Your task to perform on an android device: What's the news in Malaysia? Image 0: 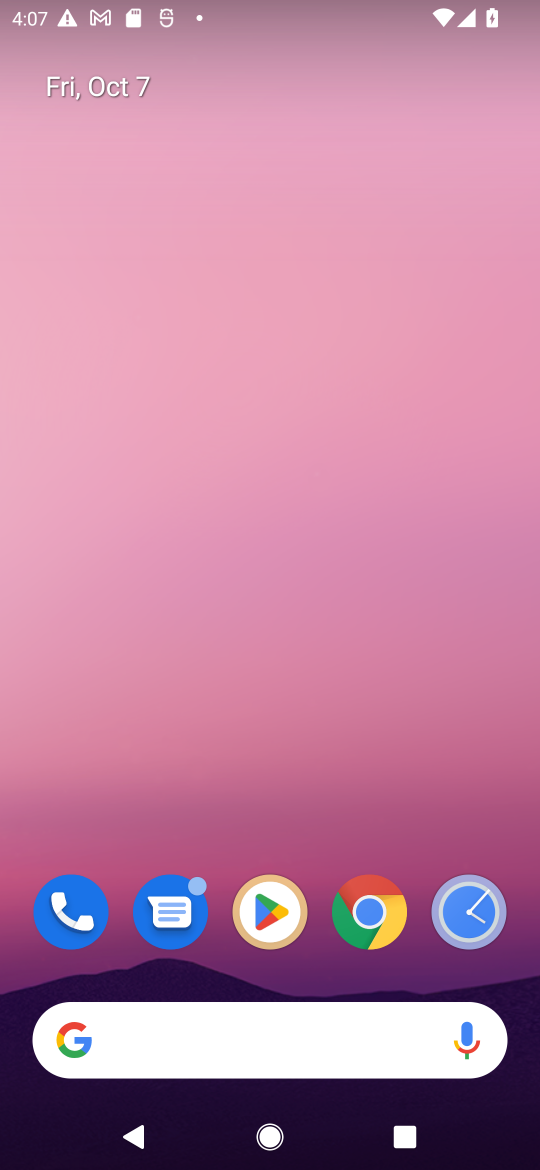
Step 0: drag from (291, 1008) to (324, 379)
Your task to perform on an android device: What's the news in Malaysia? Image 1: 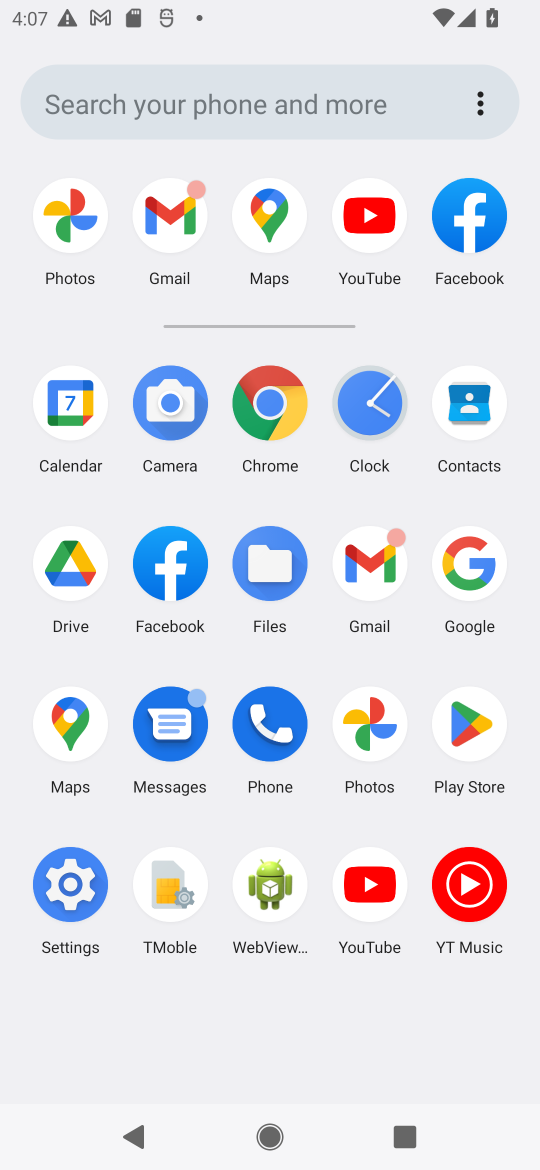
Step 1: click (455, 566)
Your task to perform on an android device: What's the news in Malaysia? Image 2: 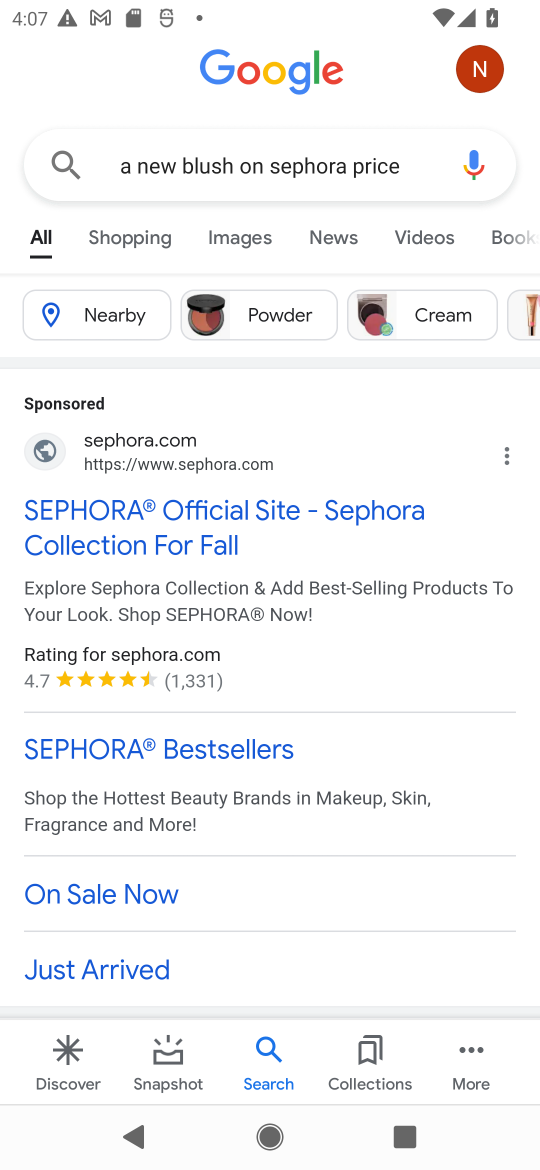
Step 2: click (405, 160)
Your task to perform on an android device: What's the news in Malaysia? Image 3: 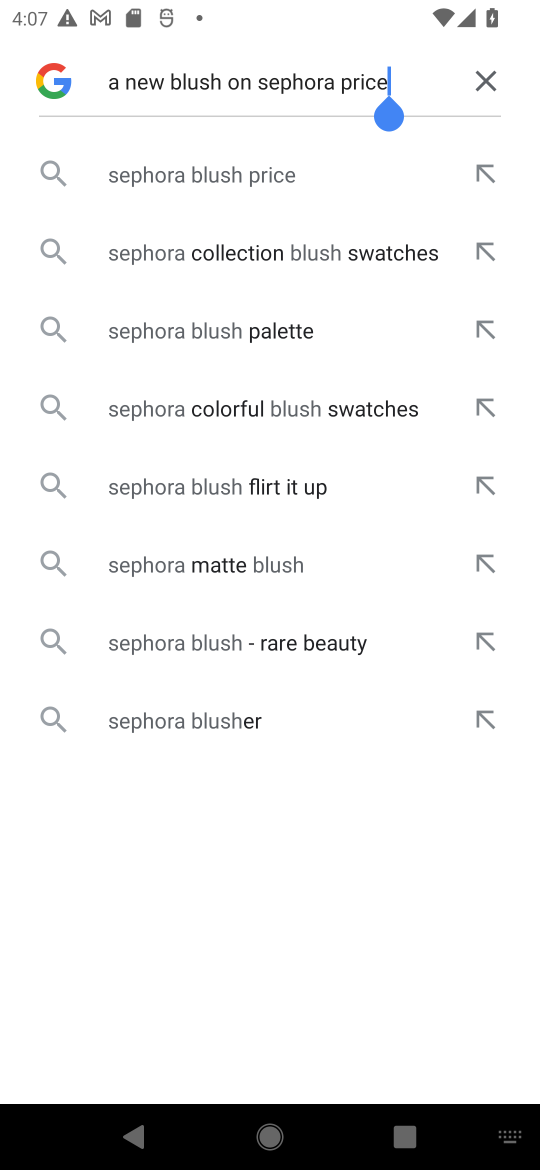
Step 3: click (474, 89)
Your task to perform on an android device: What's the news in Malaysia? Image 4: 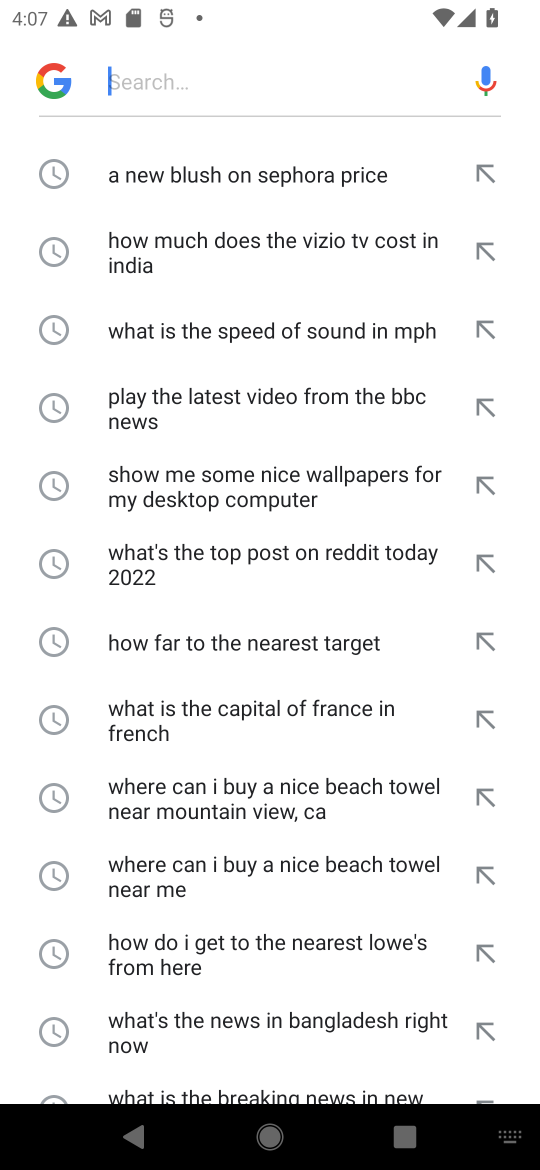
Step 4: click (221, 66)
Your task to perform on an android device: What's the news in Malaysia? Image 5: 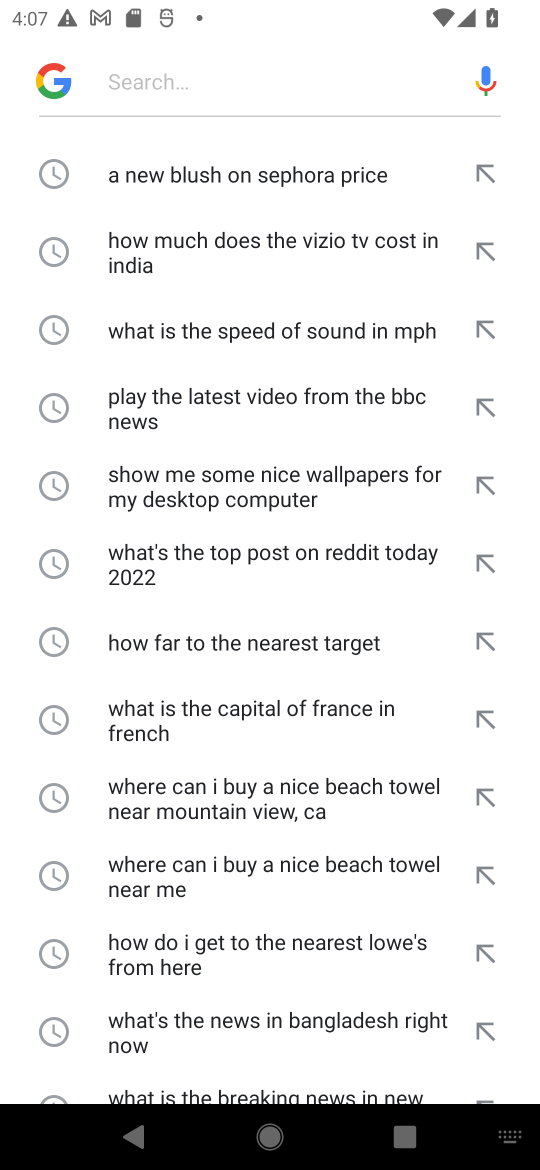
Step 5: type "What's the news in Malaysia? "
Your task to perform on an android device: What's the news in Malaysia? Image 6: 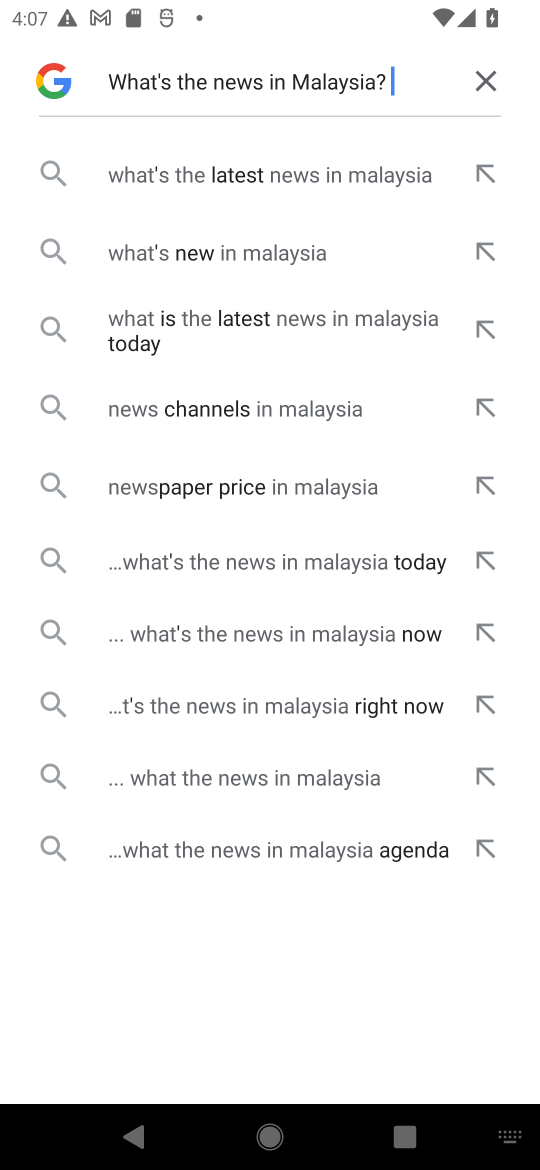
Step 6: click (143, 182)
Your task to perform on an android device: What's the news in Malaysia? Image 7: 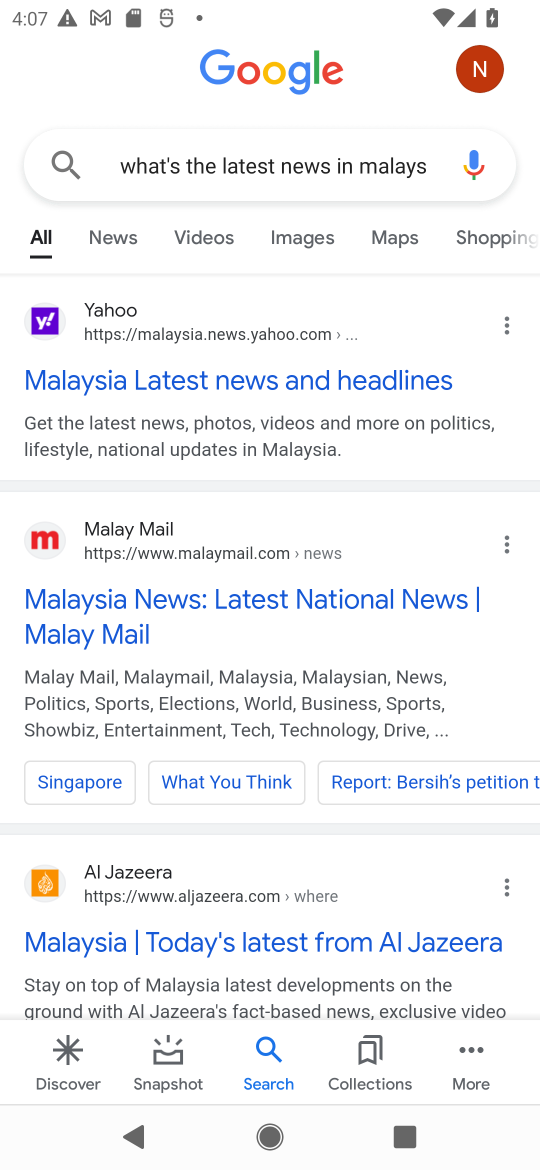
Step 7: click (380, 378)
Your task to perform on an android device: What's the news in Malaysia? Image 8: 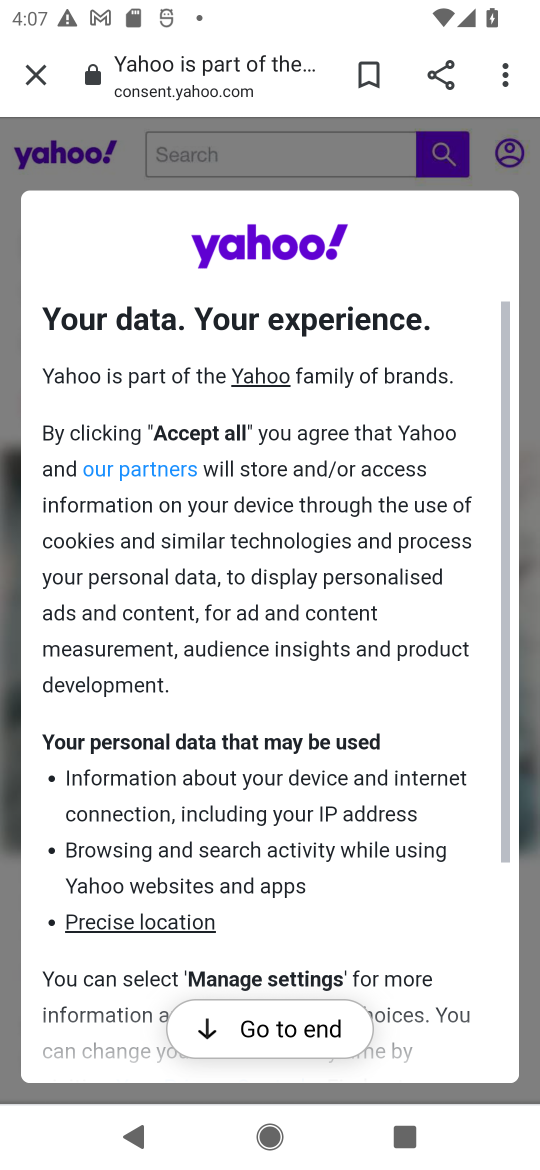
Step 8: click (307, 1035)
Your task to perform on an android device: What's the news in Malaysia? Image 9: 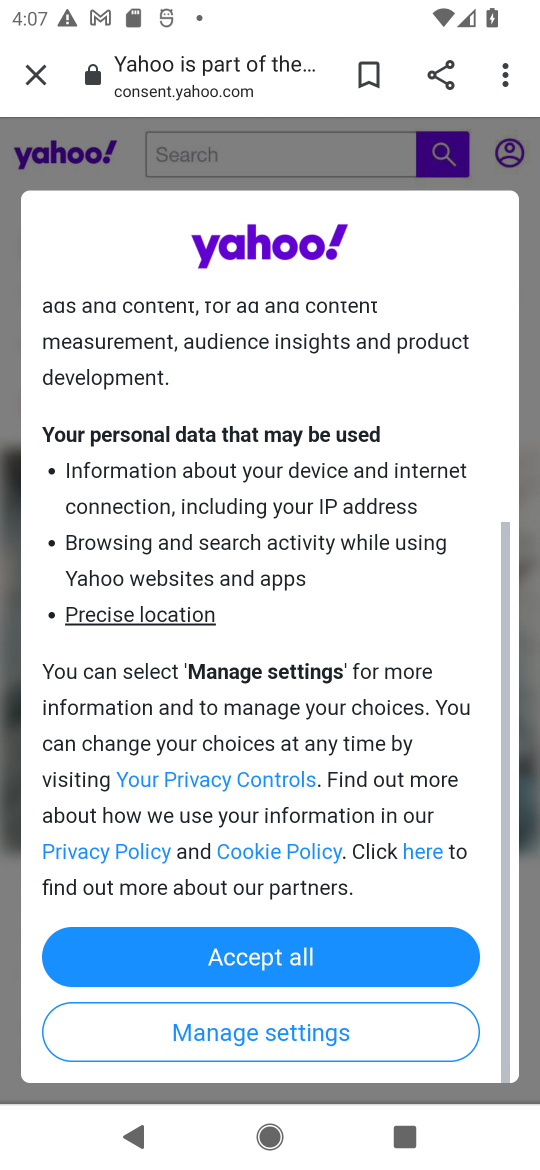
Step 9: click (312, 938)
Your task to perform on an android device: What's the news in Malaysia? Image 10: 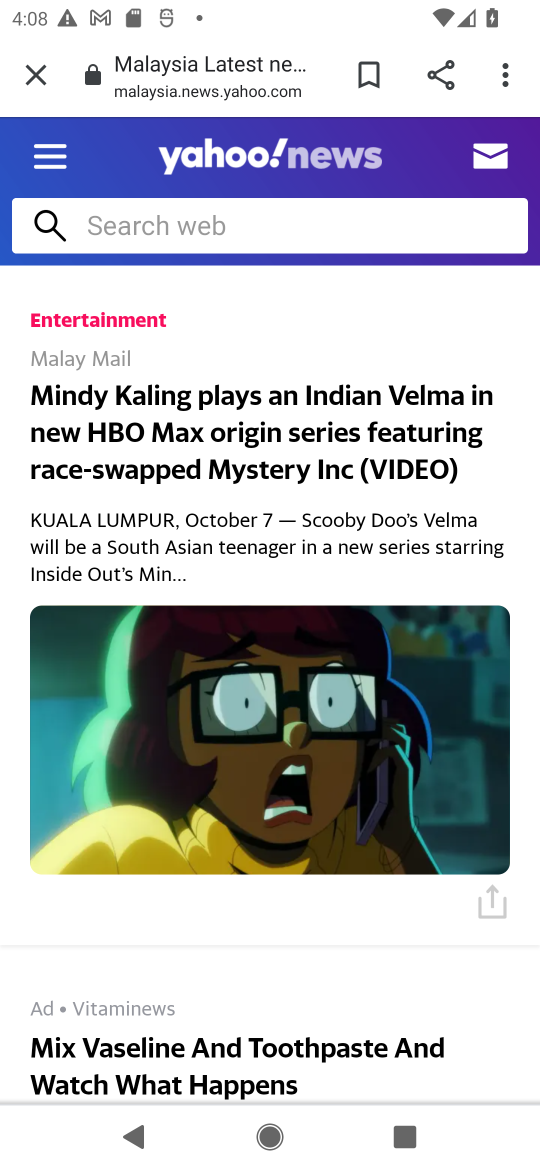
Step 10: drag from (340, 766) to (314, 160)
Your task to perform on an android device: What's the news in Malaysia? Image 11: 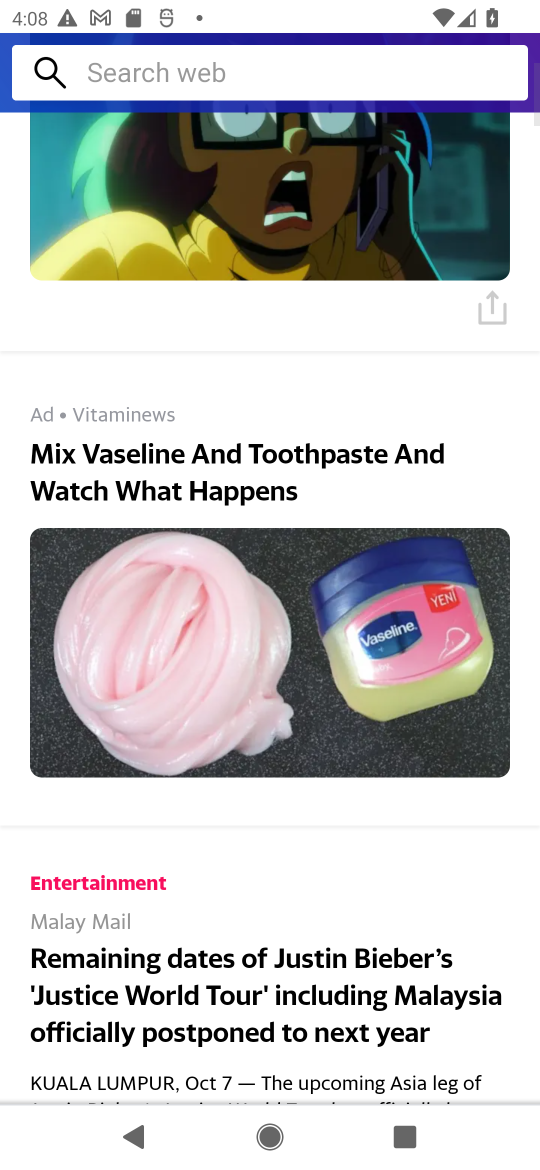
Step 11: press back button
Your task to perform on an android device: What's the news in Malaysia? Image 12: 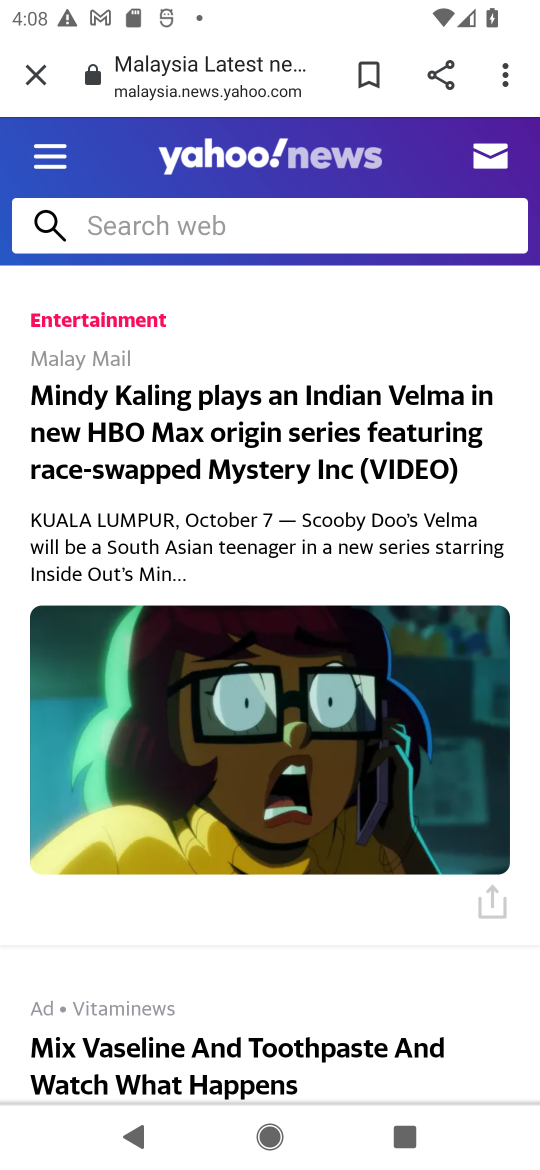
Step 12: press back button
Your task to perform on an android device: What's the news in Malaysia? Image 13: 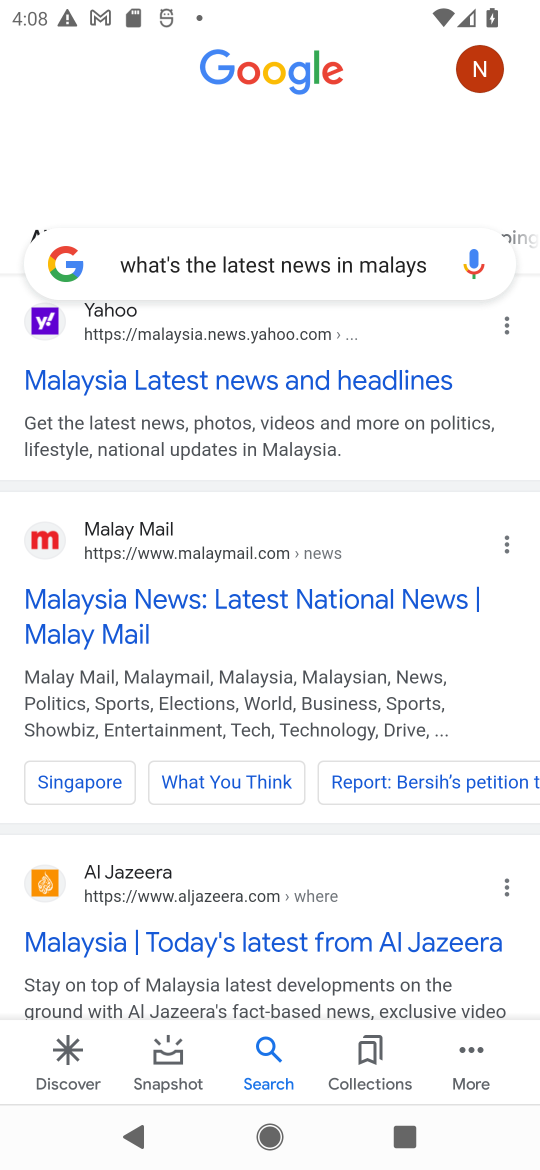
Step 13: click (310, 601)
Your task to perform on an android device: What's the news in Malaysia? Image 14: 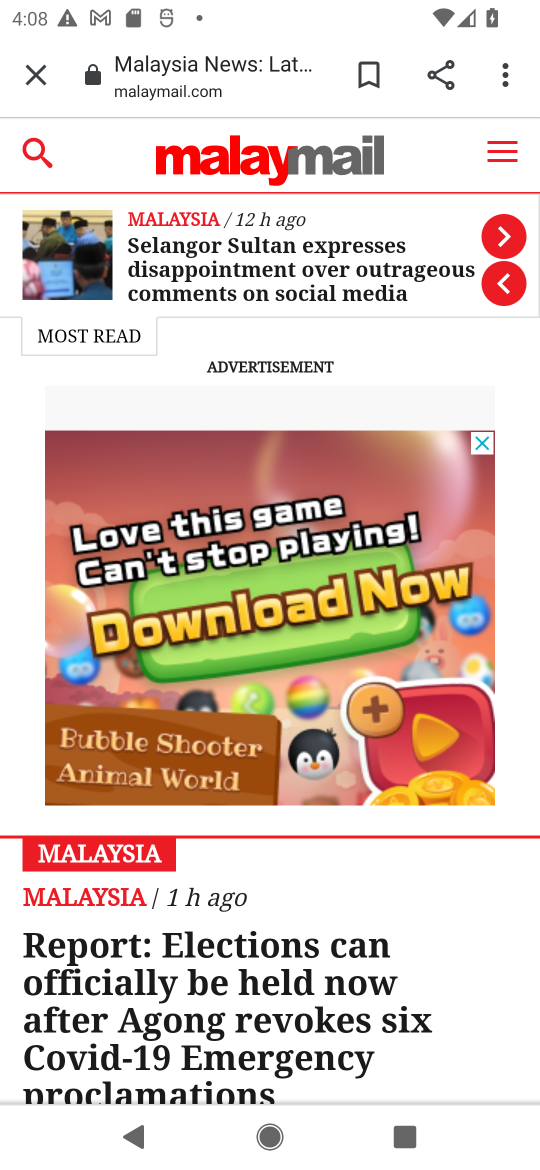
Step 14: drag from (207, 966) to (319, 221)
Your task to perform on an android device: What's the news in Malaysia? Image 15: 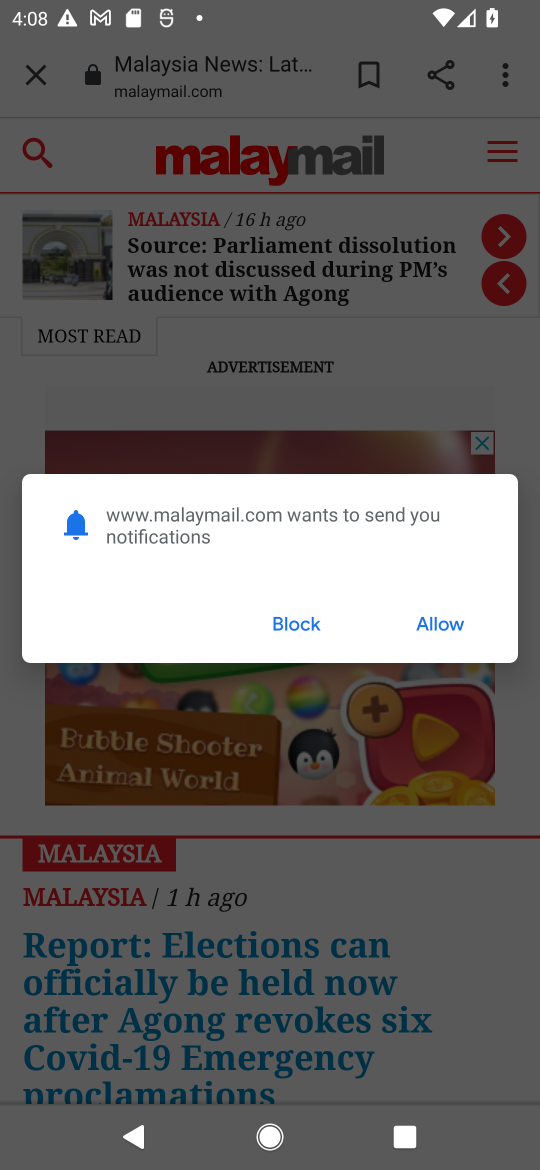
Step 15: click (409, 633)
Your task to perform on an android device: What's the news in Malaysia? Image 16: 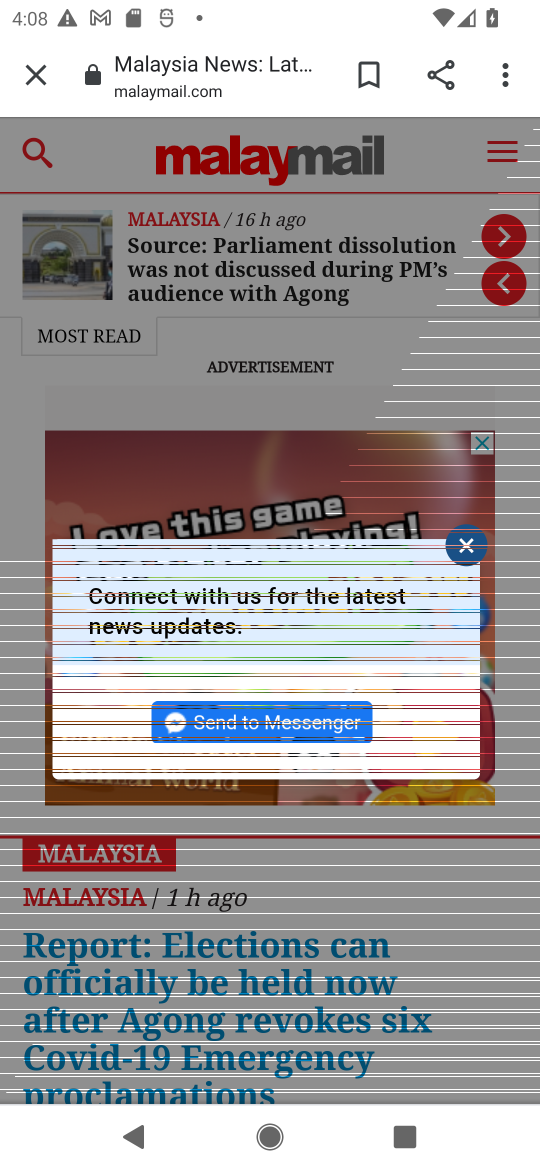
Step 16: drag from (353, 991) to (377, 612)
Your task to perform on an android device: What's the news in Malaysia? Image 17: 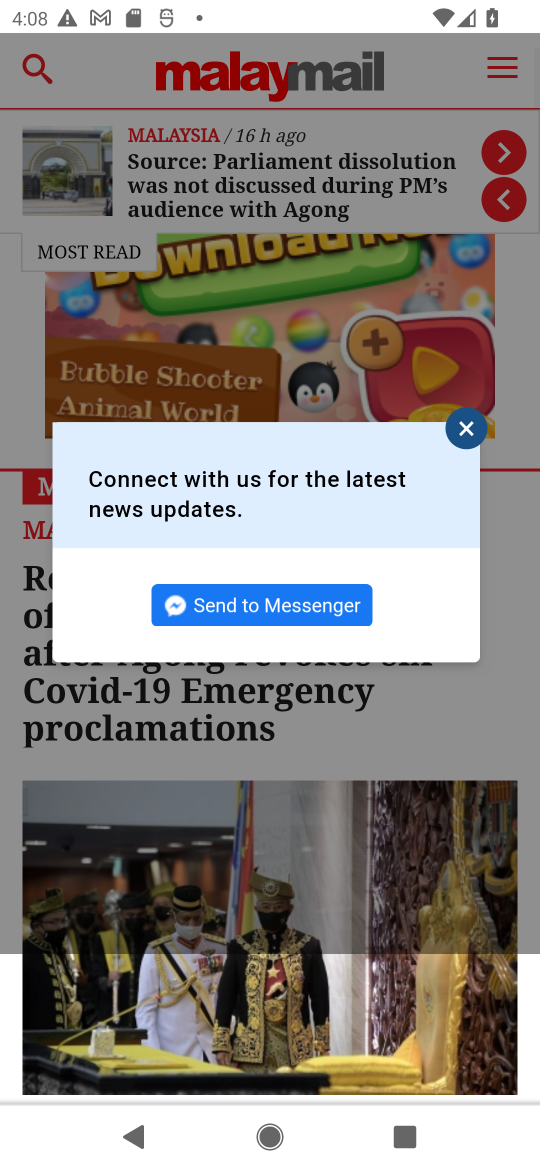
Step 17: drag from (326, 929) to (405, 140)
Your task to perform on an android device: What's the news in Malaysia? Image 18: 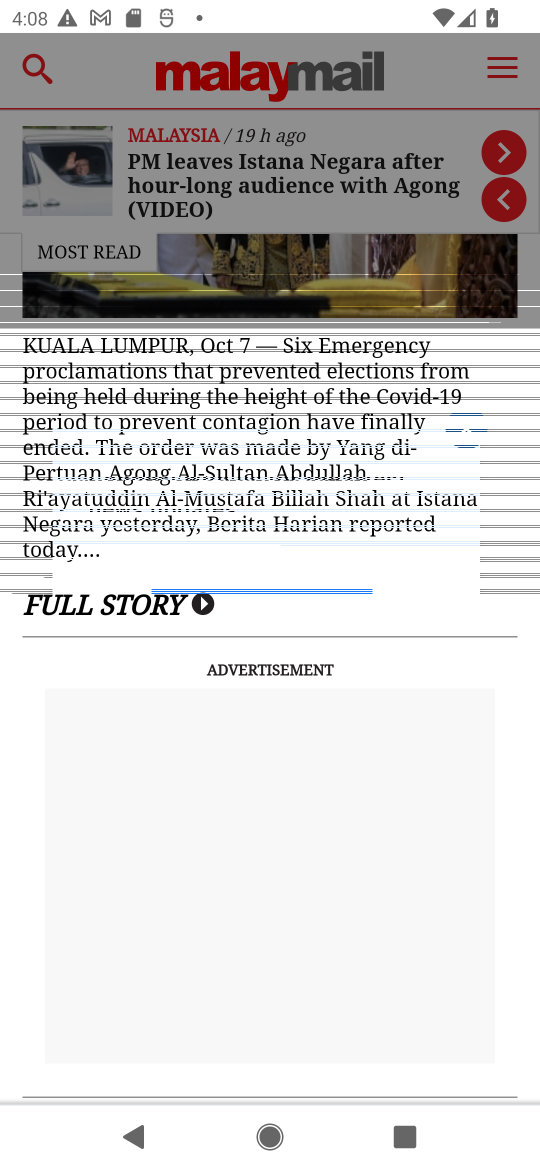
Step 18: click (460, 438)
Your task to perform on an android device: What's the news in Malaysia? Image 19: 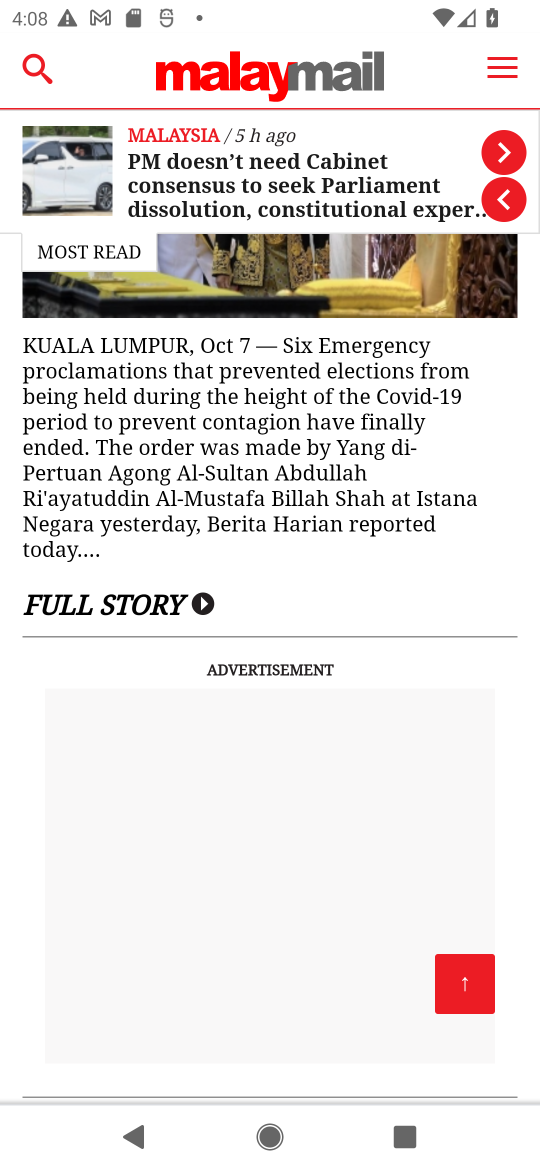
Step 19: task complete